Your task to perform on an android device: What's the weather? Image 0: 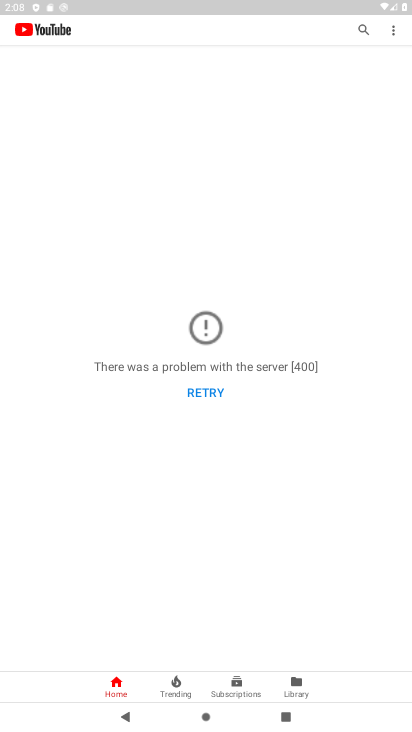
Step 0: press home button
Your task to perform on an android device: What's the weather? Image 1: 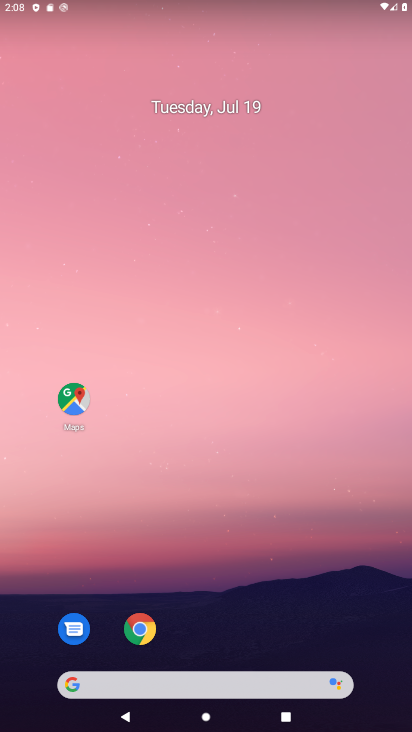
Step 1: click (133, 630)
Your task to perform on an android device: What's the weather? Image 2: 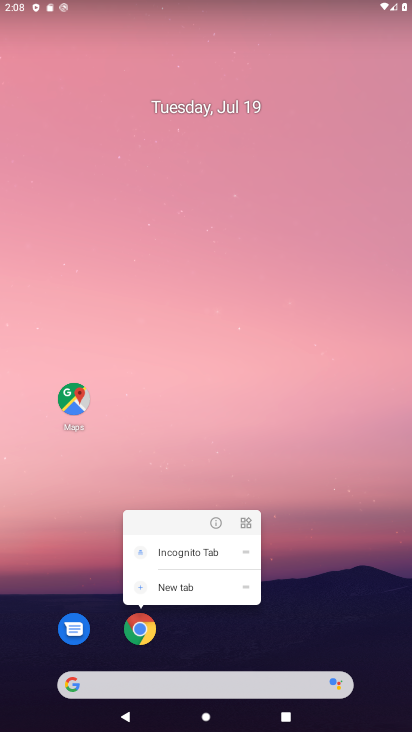
Step 2: click (143, 627)
Your task to perform on an android device: What's the weather? Image 3: 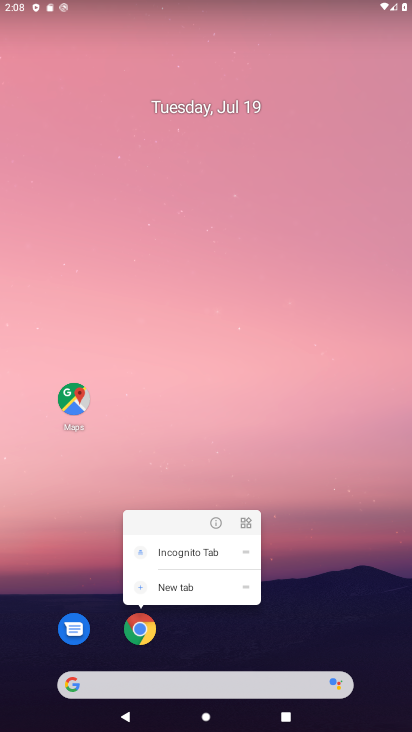
Step 3: click (144, 626)
Your task to perform on an android device: What's the weather? Image 4: 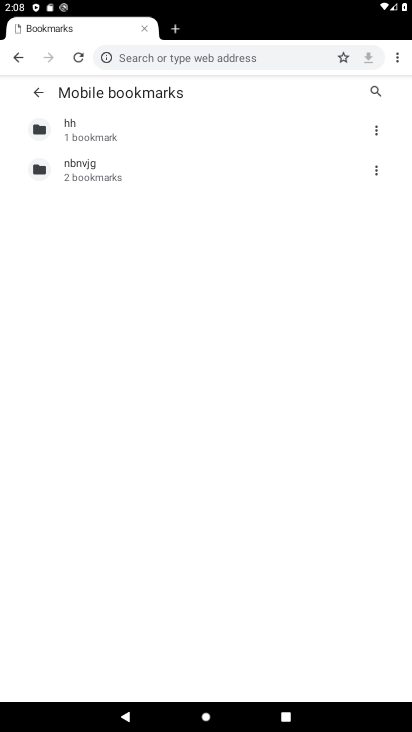
Step 4: press back button
Your task to perform on an android device: What's the weather? Image 5: 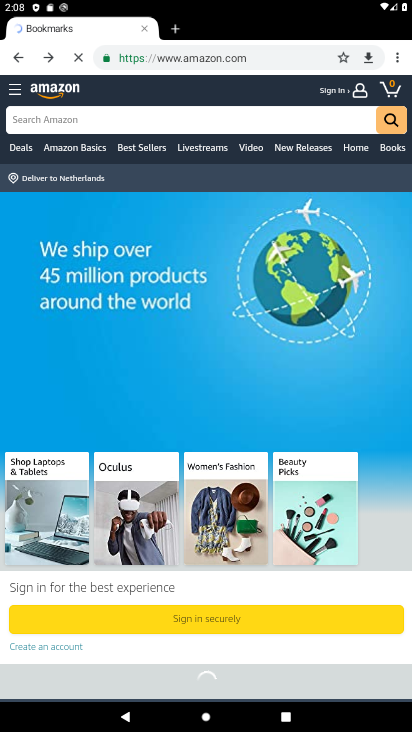
Step 5: click (252, 58)
Your task to perform on an android device: What's the weather? Image 6: 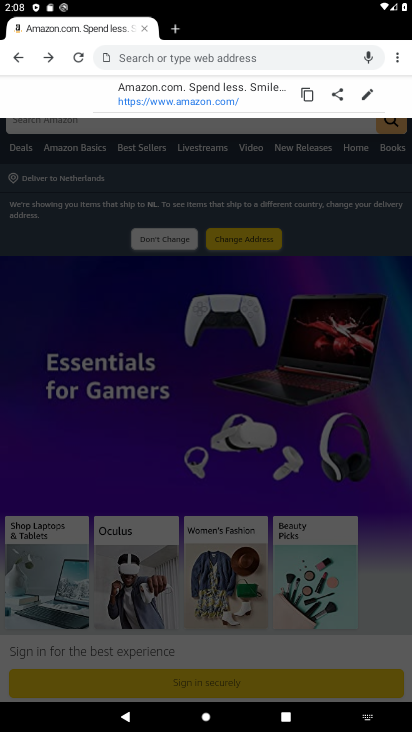
Step 6: type "What's the weather?"
Your task to perform on an android device: What's the weather? Image 7: 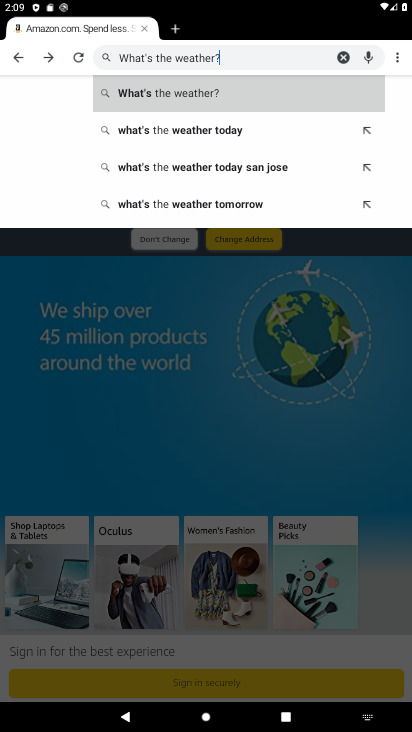
Step 7: click (252, 100)
Your task to perform on an android device: What's the weather? Image 8: 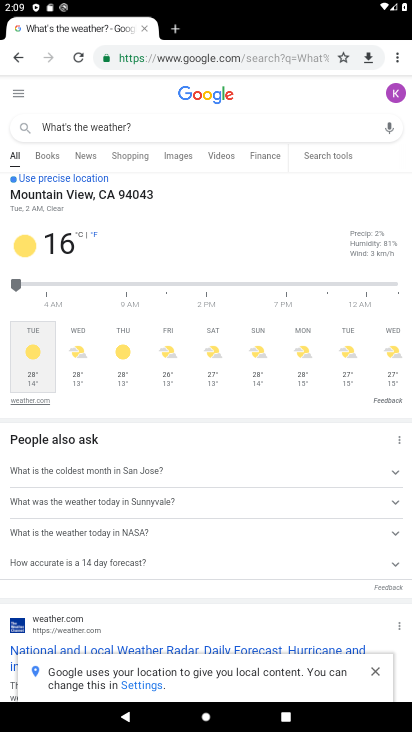
Step 8: task complete